Your task to perform on an android device: Go to eBay Image 0: 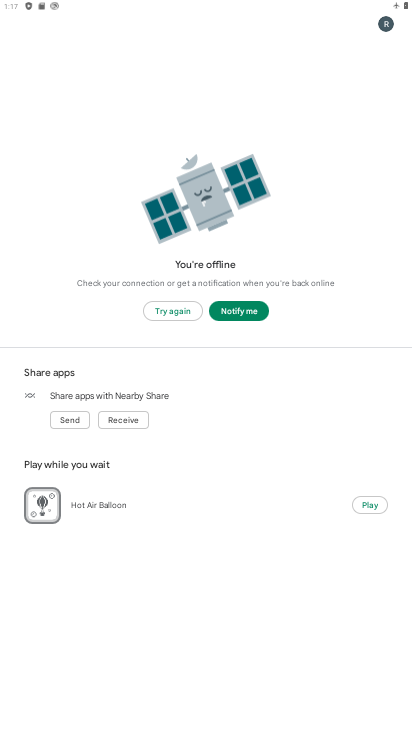
Step 0: press home button
Your task to perform on an android device: Go to eBay Image 1: 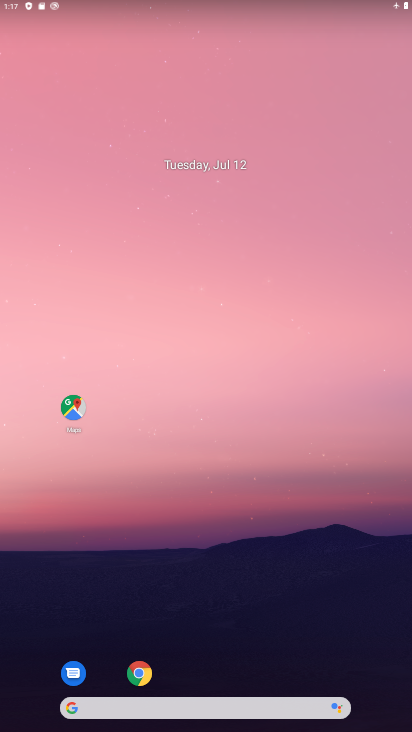
Step 1: drag from (266, 591) to (280, 314)
Your task to perform on an android device: Go to eBay Image 2: 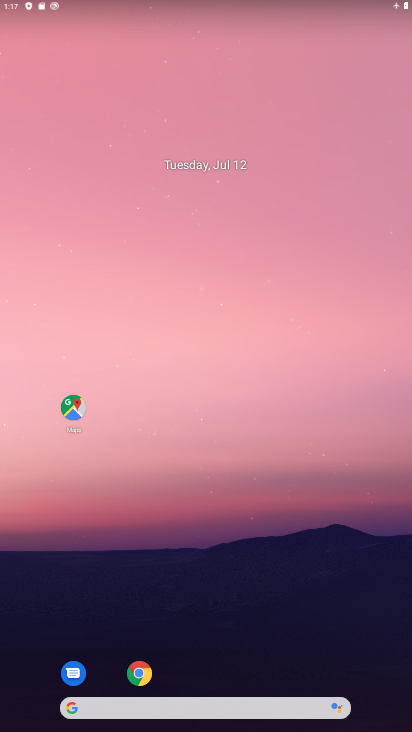
Step 2: click (139, 666)
Your task to perform on an android device: Go to eBay Image 3: 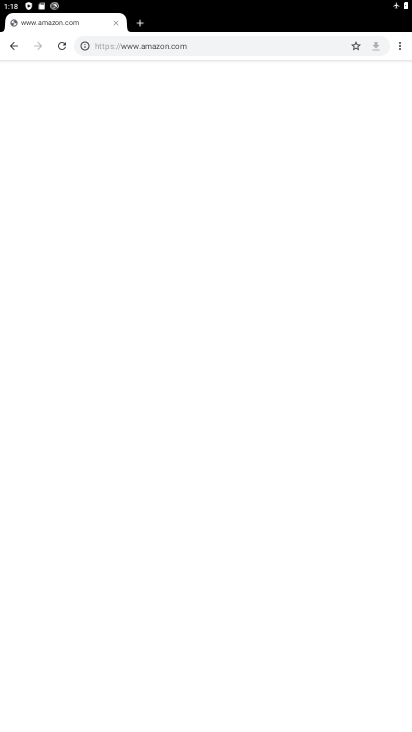
Step 3: click (406, 48)
Your task to perform on an android device: Go to eBay Image 4: 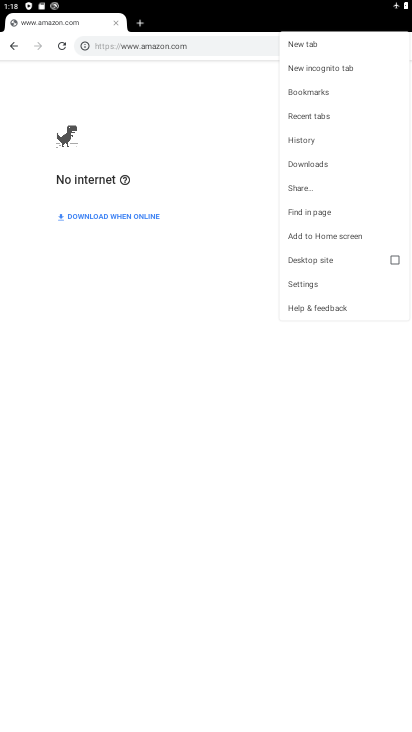
Step 4: click (318, 45)
Your task to perform on an android device: Go to eBay Image 5: 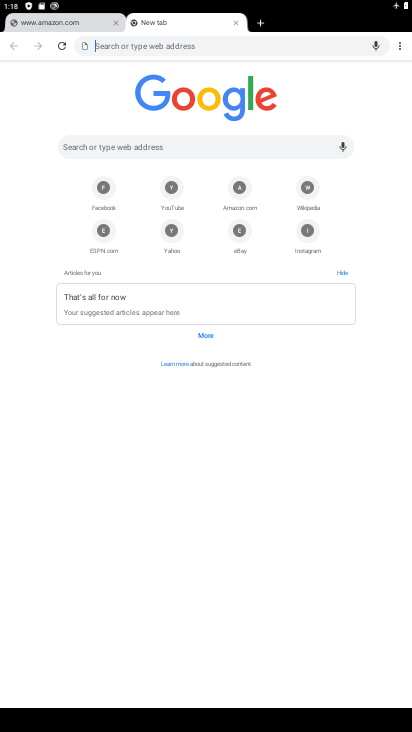
Step 5: click (245, 220)
Your task to perform on an android device: Go to eBay Image 6: 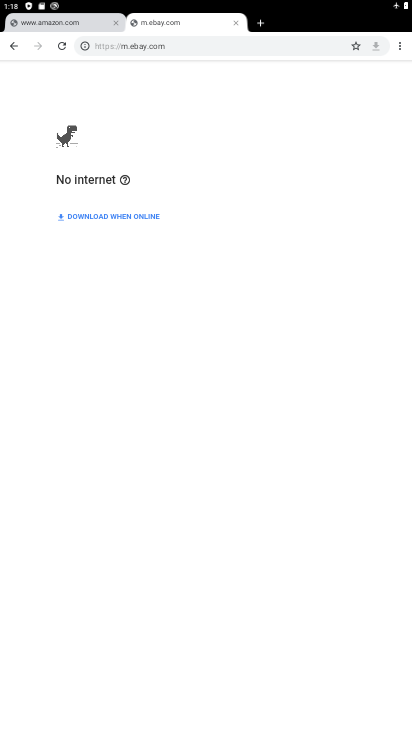
Step 6: task complete